Your task to perform on an android device: Go to accessibility settings Image 0: 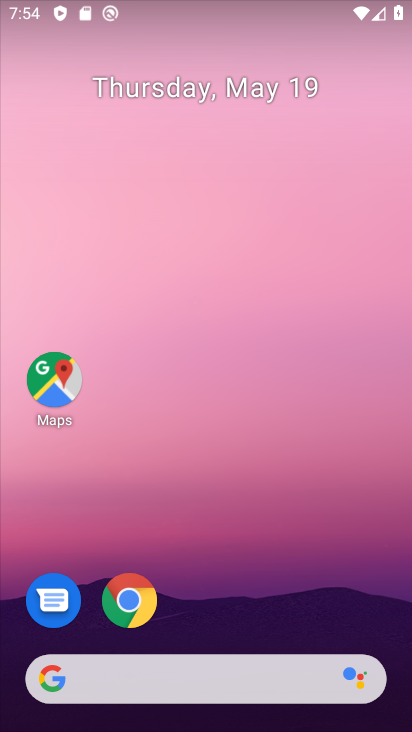
Step 0: drag from (346, 480) to (368, 147)
Your task to perform on an android device: Go to accessibility settings Image 1: 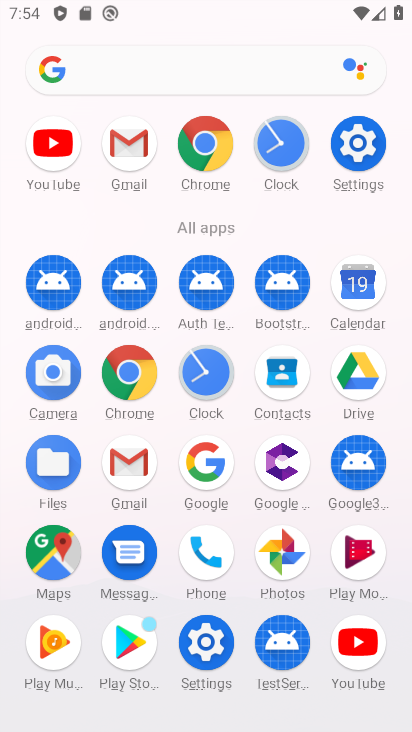
Step 1: click (354, 157)
Your task to perform on an android device: Go to accessibility settings Image 2: 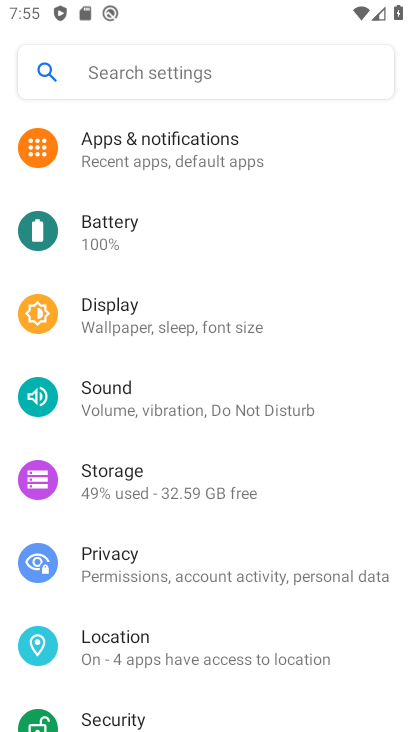
Step 2: drag from (377, 275) to (374, 329)
Your task to perform on an android device: Go to accessibility settings Image 3: 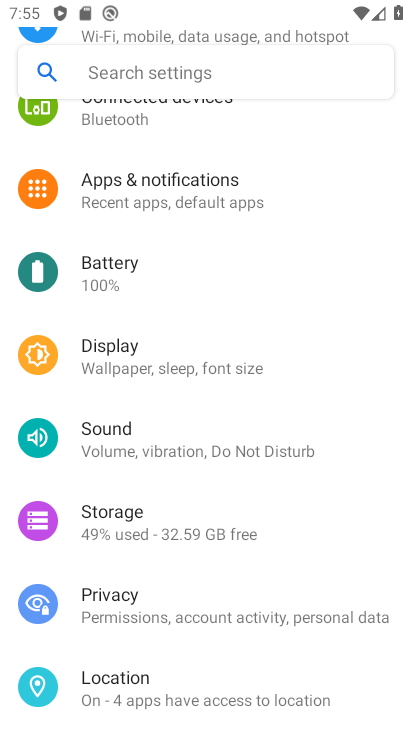
Step 3: drag from (366, 272) to (361, 343)
Your task to perform on an android device: Go to accessibility settings Image 4: 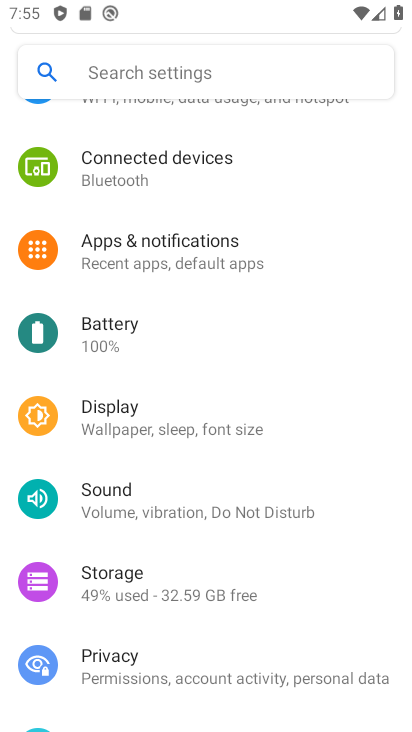
Step 4: drag from (351, 280) to (346, 342)
Your task to perform on an android device: Go to accessibility settings Image 5: 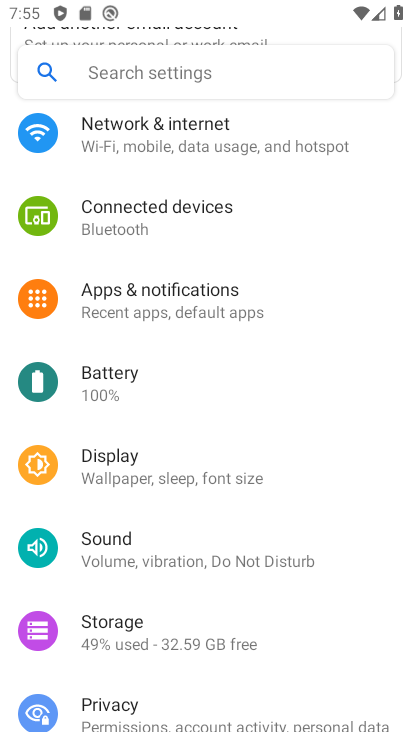
Step 5: drag from (345, 276) to (342, 325)
Your task to perform on an android device: Go to accessibility settings Image 6: 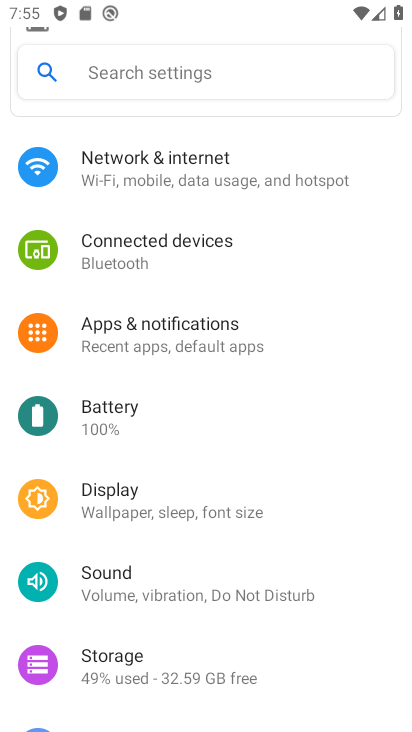
Step 6: drag from (343, 262) to (335, 364)
Your task to perform on an android device: Go to accessibility settings Image 7: 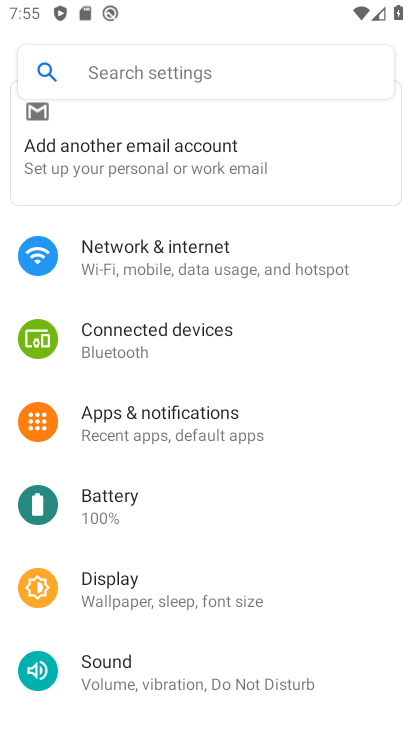
Step 7: drag from (335, 346) to (340, 411)
Your task to perform on an android device: Go to accessibility settings Image 8: 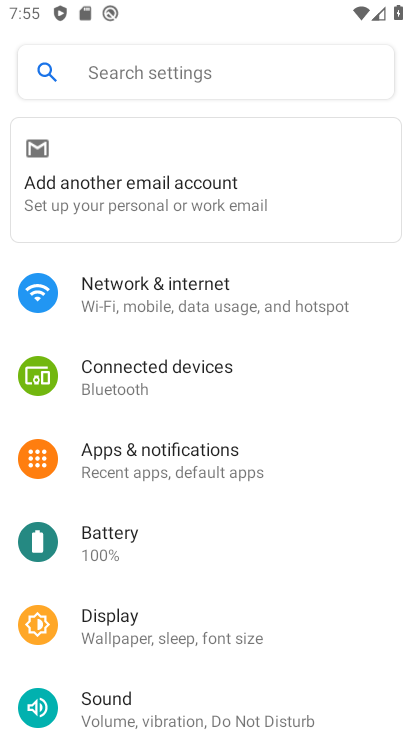
Step 8: drag from (333, 316) to (329, 437)
Your task to perform on an android device: Go to accessibility settings Image 9: 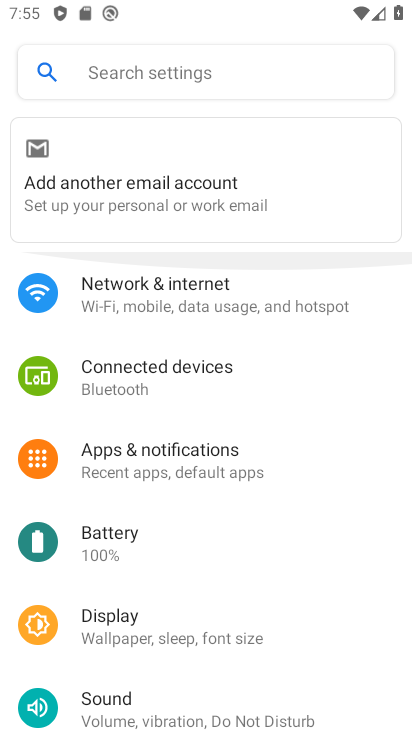
Step 9: drag from (313, 491) to (312, 373)
Your task to perform on an android device: Go to accessibility settings Image 10: 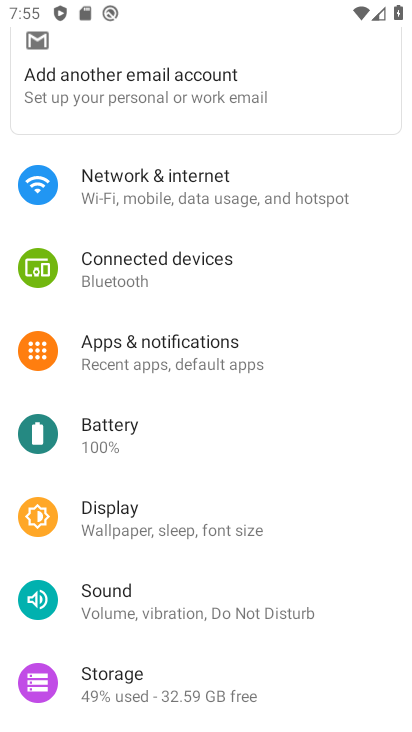
Step 10: drag from (312, 486) to (319, 384)
Your task to perform on an android device: Go to accessibility settings Image 11: 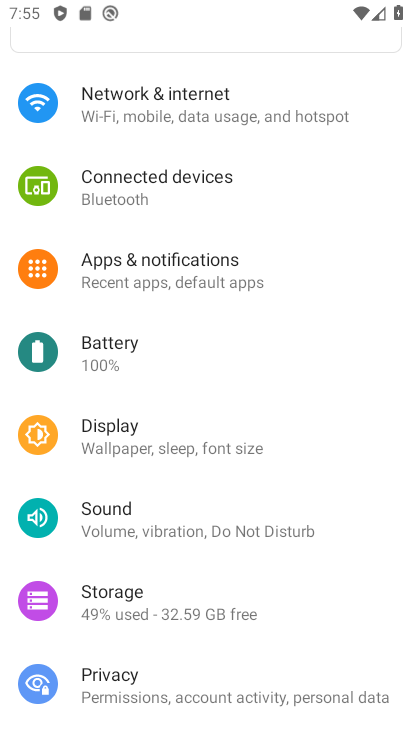
Step 11: drag from (325, 559) to (329, 449)
Your task to perform on an android device: Go to accessibility settings Image 12: 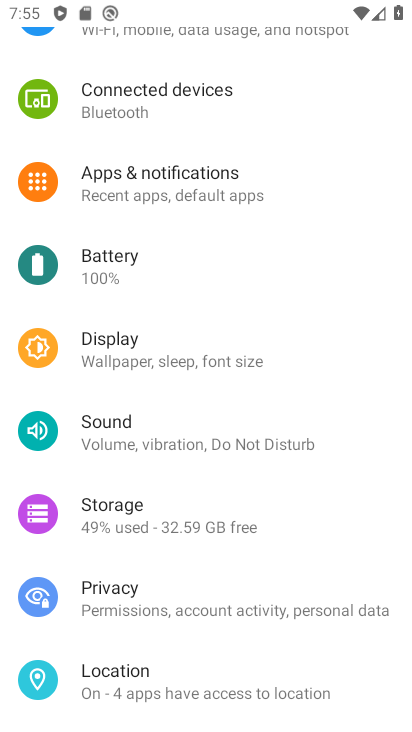
Step 12: drag from (355, 615) to (372, 478)
Your task to perform on an android device: Go to accessibility settings Image 13: 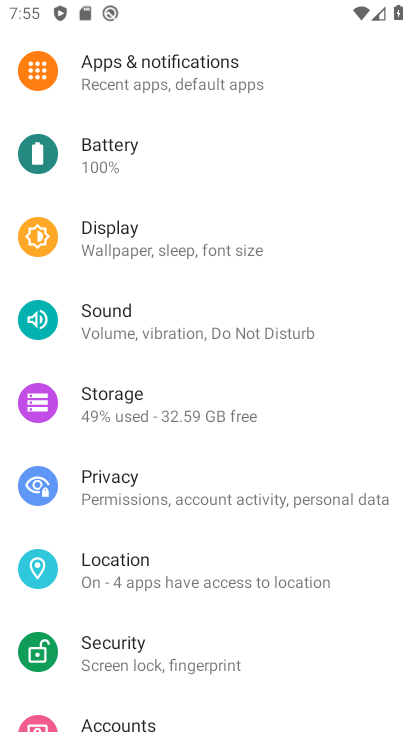
Step 13: drag from (352, 633) to (355, 524)
Your task to perform on an android device: Go to accessibility settings Image 14: 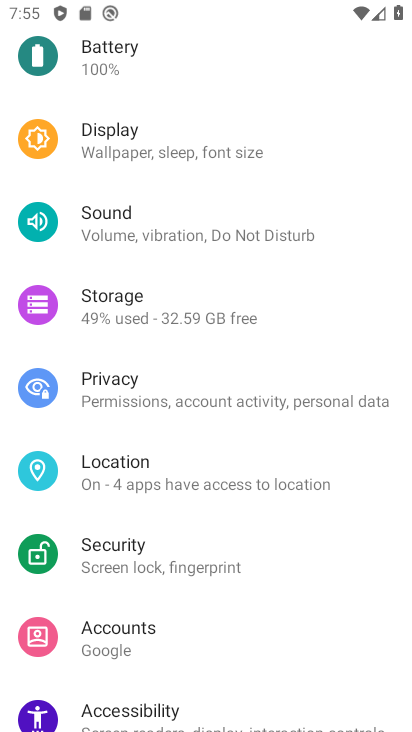
Step 14: drag from (357, 654) to (363, 532)
Your task to perform on an android device: Go to accessibility settings Image 15: 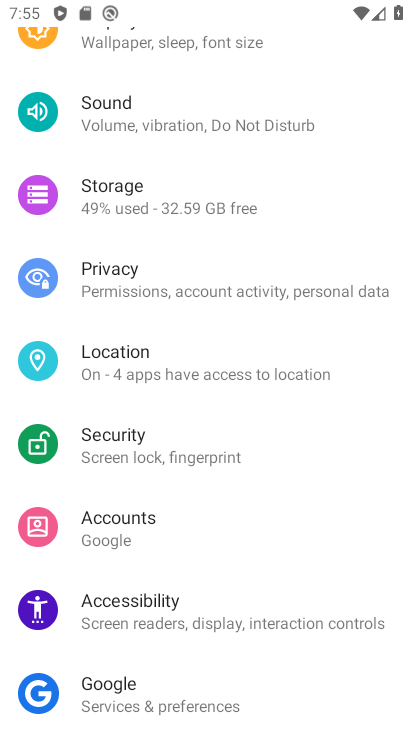
Step 15: drag from (345, 673) to (355, 549)
Your task to perform on an android device: Go to accessibility settings Image 16: 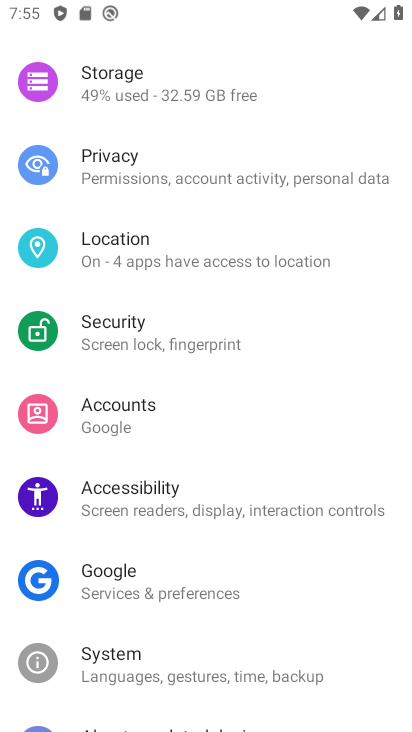
Step 16: drag from (347, 619) to (355, 559)
Your task to perform on an android device: Go to accessibility settings Image 17: 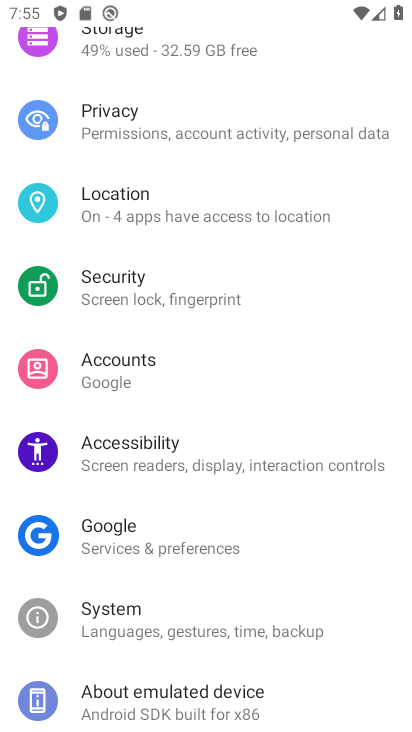
Step 17: click (292, 493)
Your task to perform on an android device: Go to accessibility settings Image 18: 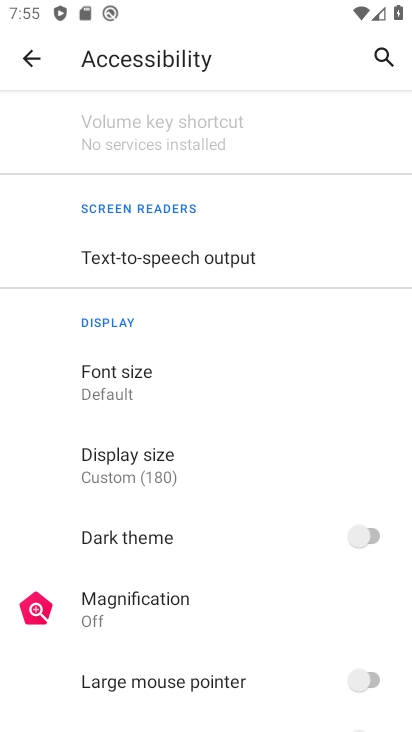
Step 18: task complete